Your task to perform on an android device: Turn off the flashlight Image 0: 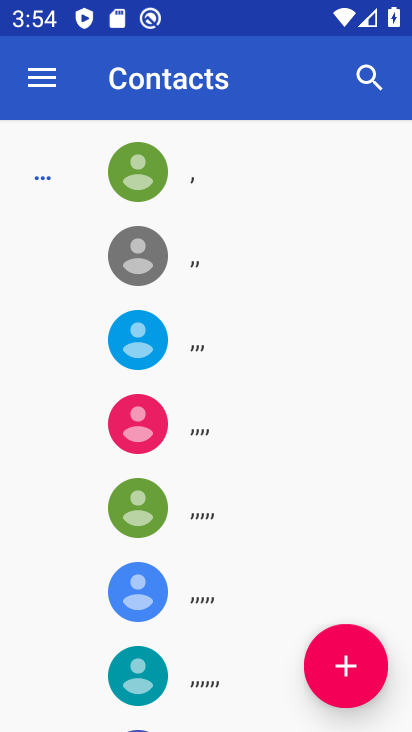
Step 0: press home button
Your task to perform on an android device: Turn off the flashlight Image 1: 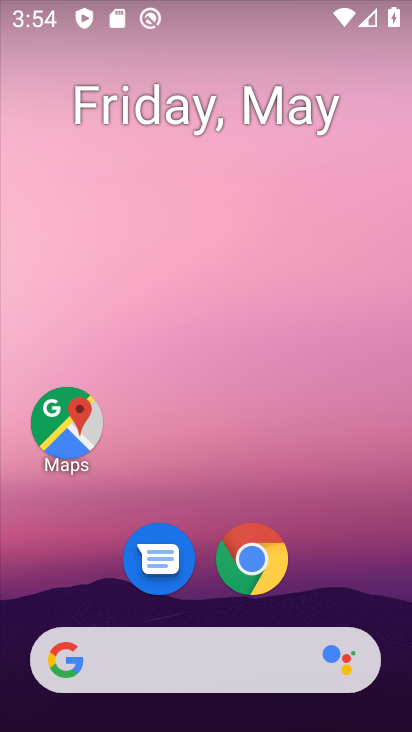
Step 1: drag from (334, 571) to (242, 116)
Your task to perform on an android device: Turn off the flashlight Image 2: 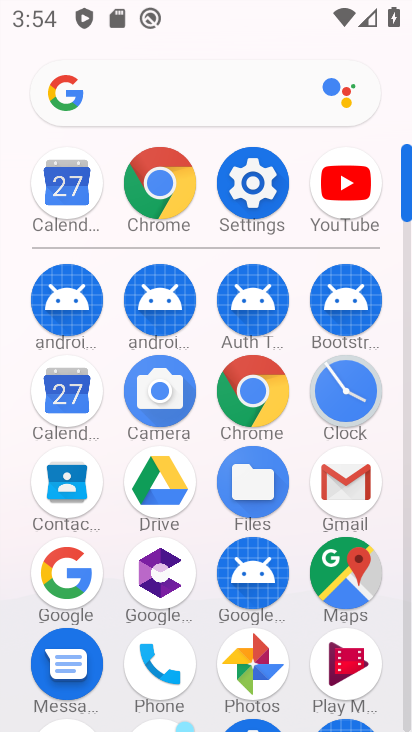
Step 2: click (247, 174)
Your task to perform on an android device: Turn off the flashlight Image 3: 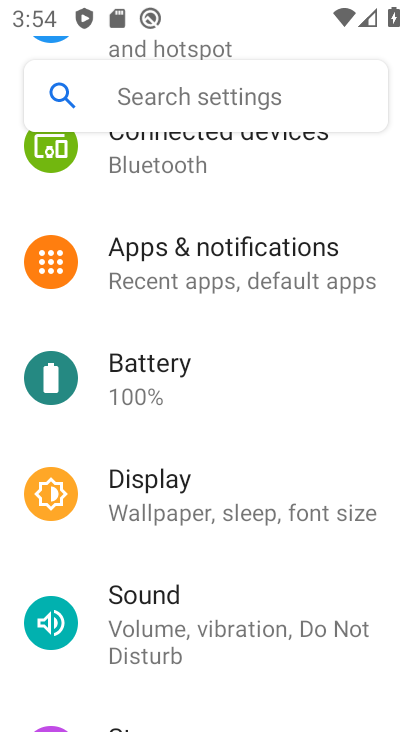
Step 3: drag from (154, 225) to (202, 492)
Your task to perform on an android device: Turn off the flashlight Image 4: 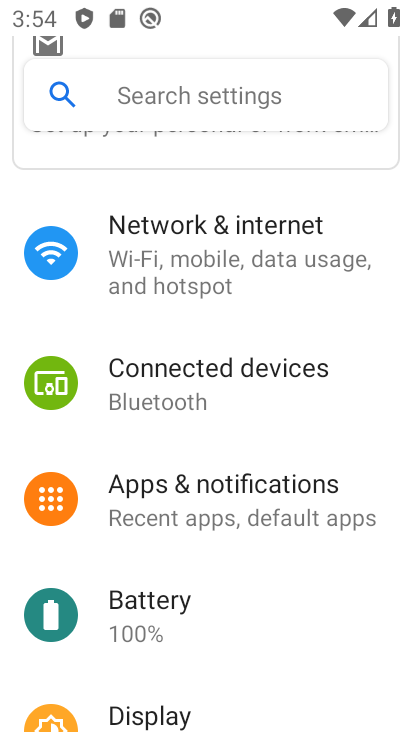
Step 4: drag from (192, 472) to (204, 157)
Your task to perform on an android device: Turn off the flashlight Image 5: 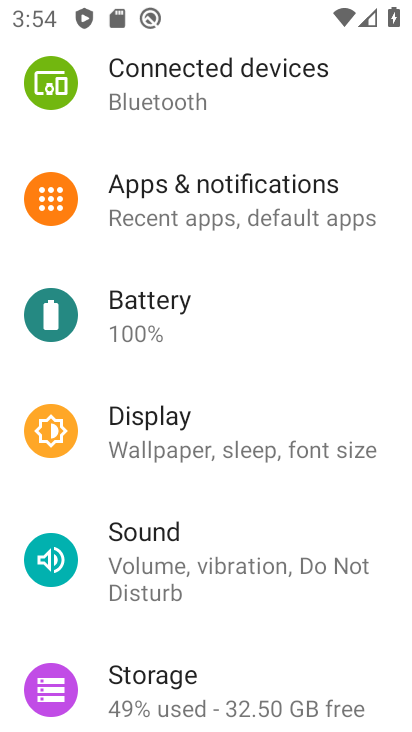
Step 5: click (159, 409)
Your task to perform on an android device: Turn off the flashlight Image 6: 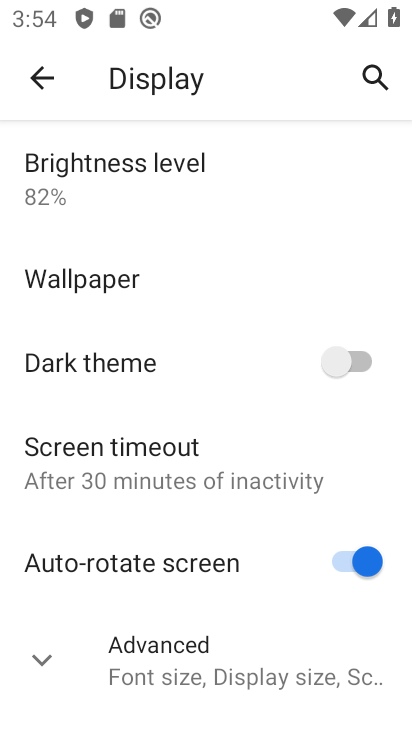
Step 6: click (120, 666)
Your task to perform on an android device: Turn off the flashlight Image 7: 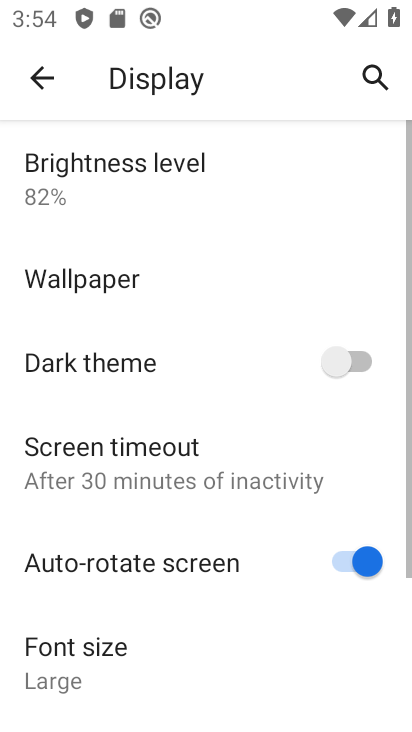
Step 7: task complete